Your task to perform on an android device: check android version Image 0: 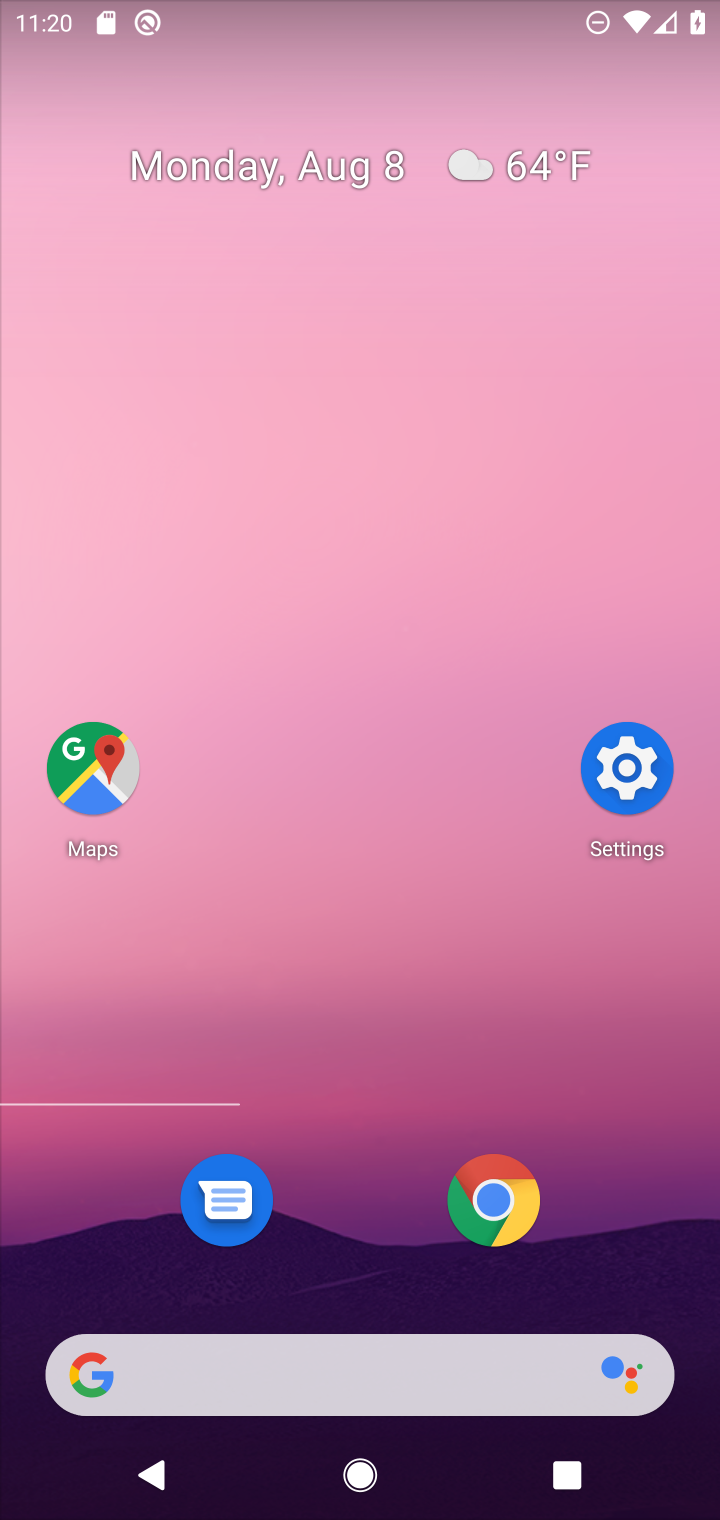
Step 0: press home button
Your task to perform on an android device: check android version Image 1: 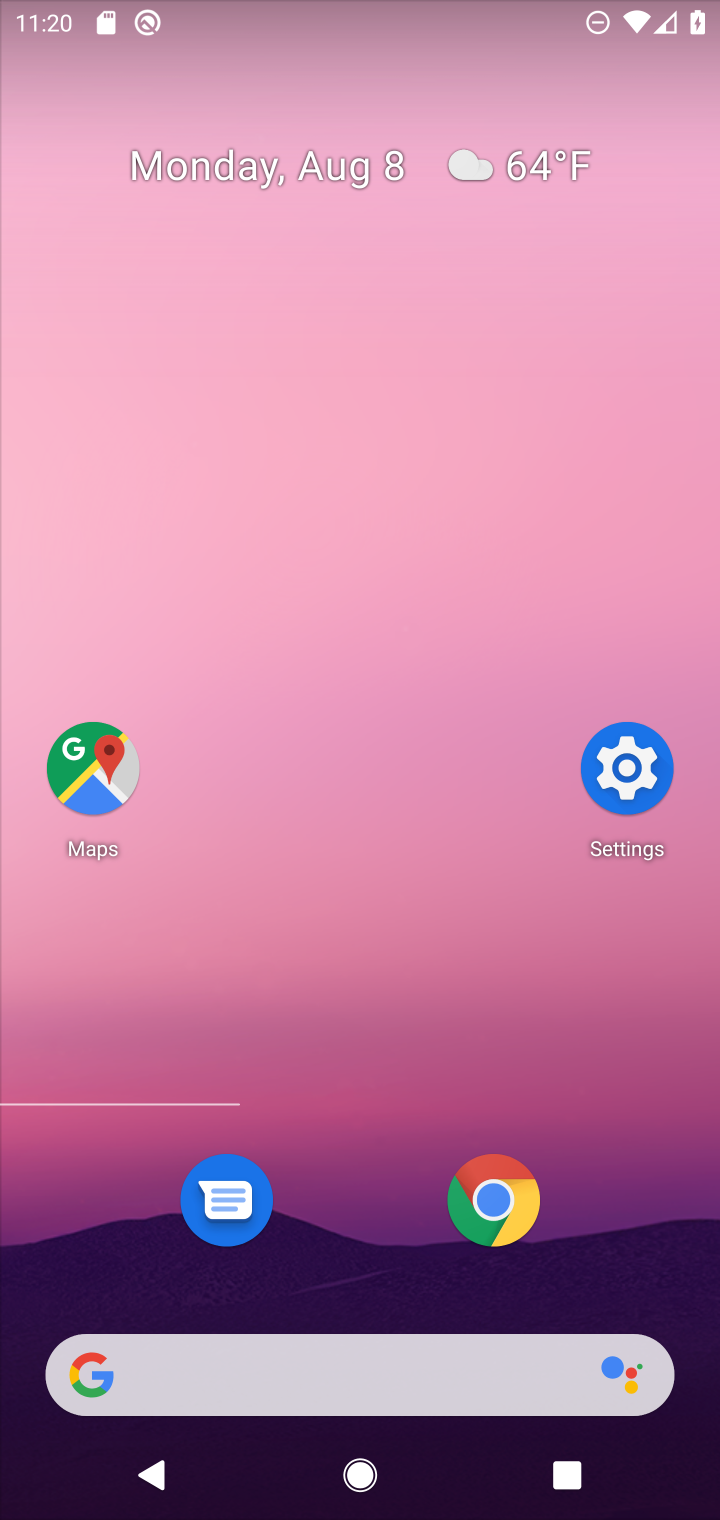
Step 1: click (629, 762)
Your task to perform on an android device: check android version Image 2: 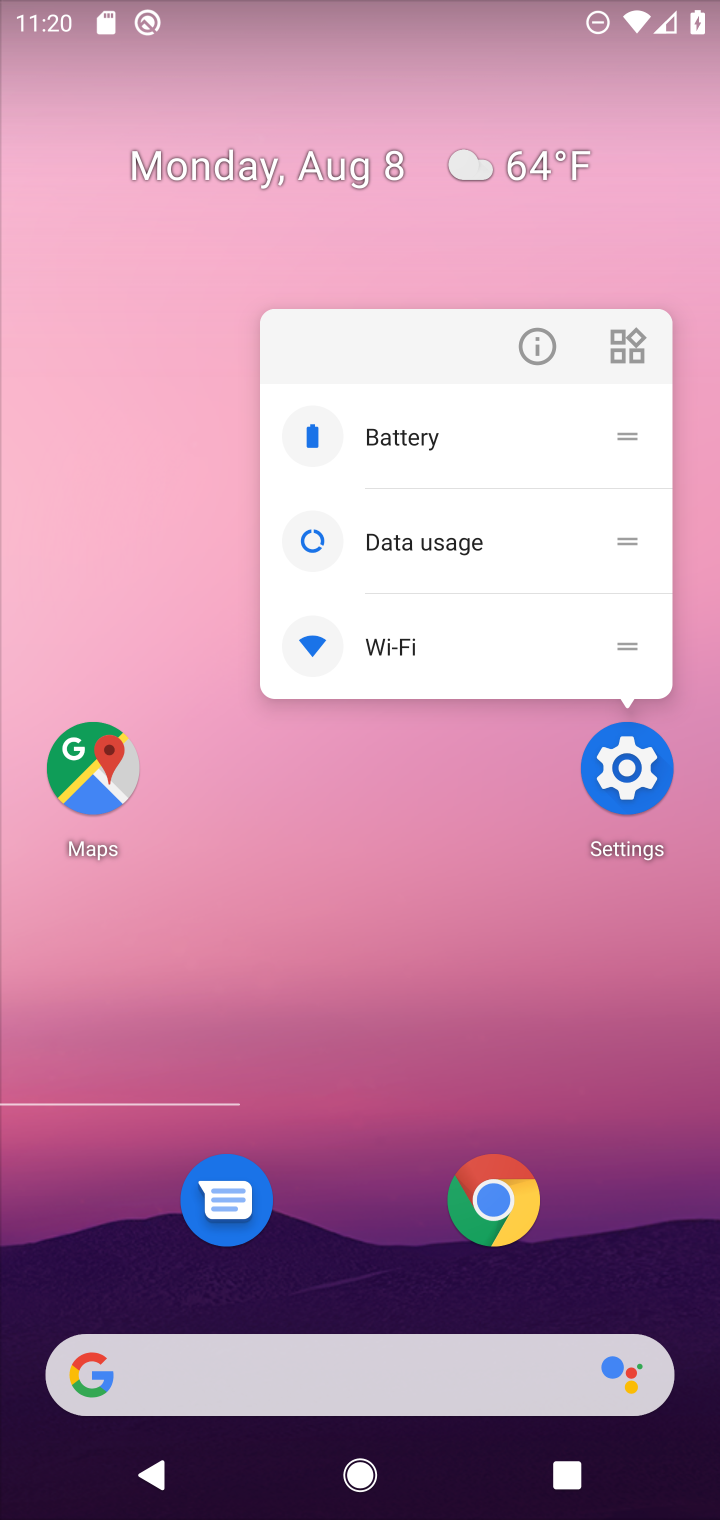
Step 2: click (629, 765)
Your task to perform on an android device: check android version Image 3: 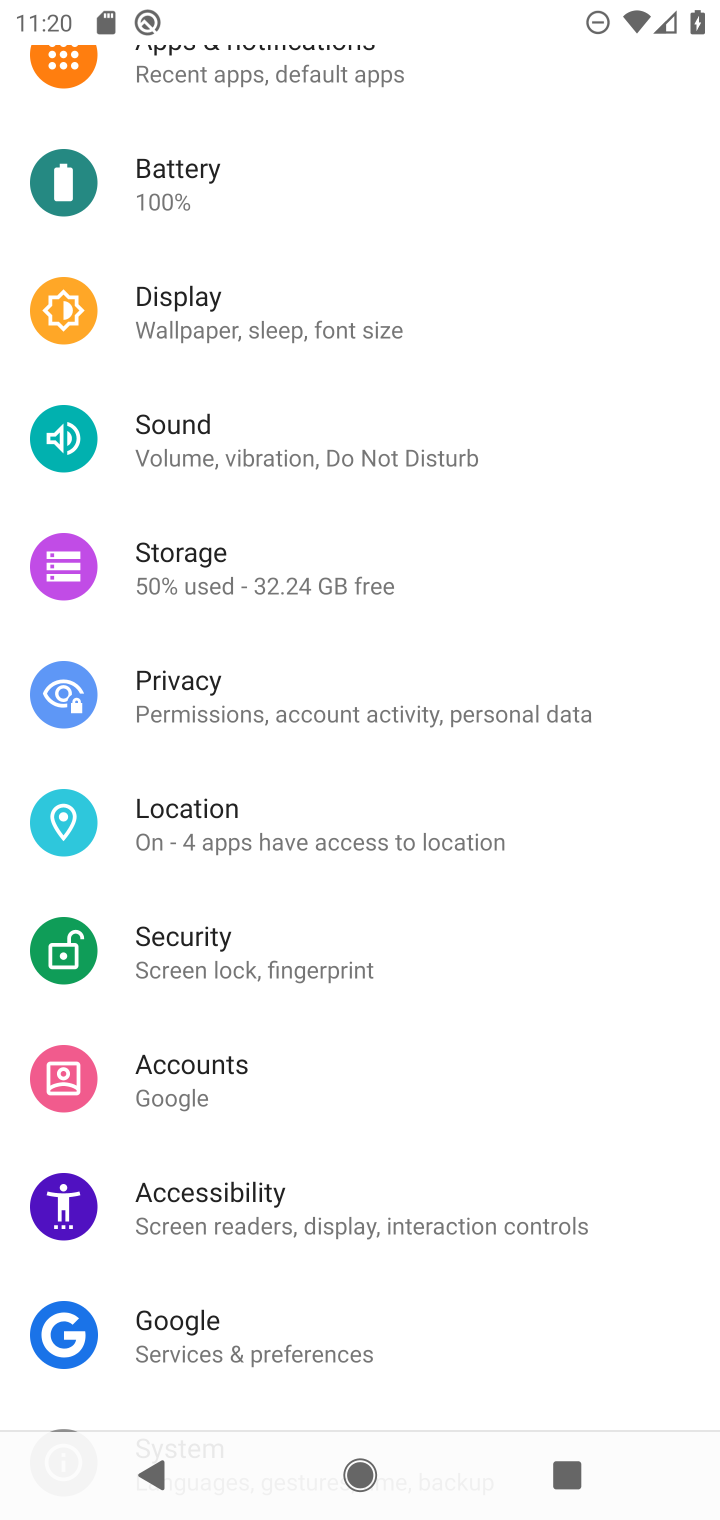
Step 3: drag from (394, 1346) to (591, 194)
Your task to perform on an android device: check android version Image 4: 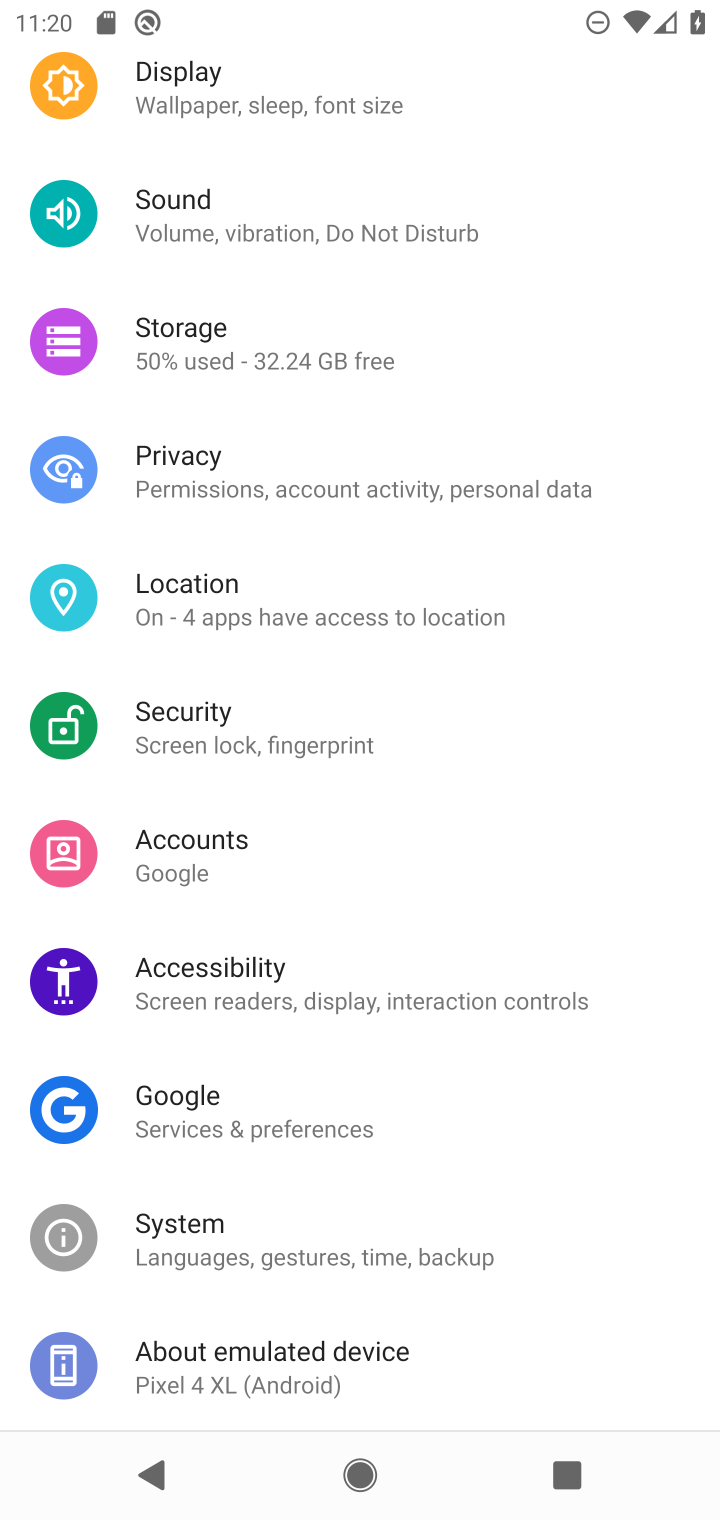
Step 4: click (256, 1354)
Your task to perform on an android device: check android version Image 5: 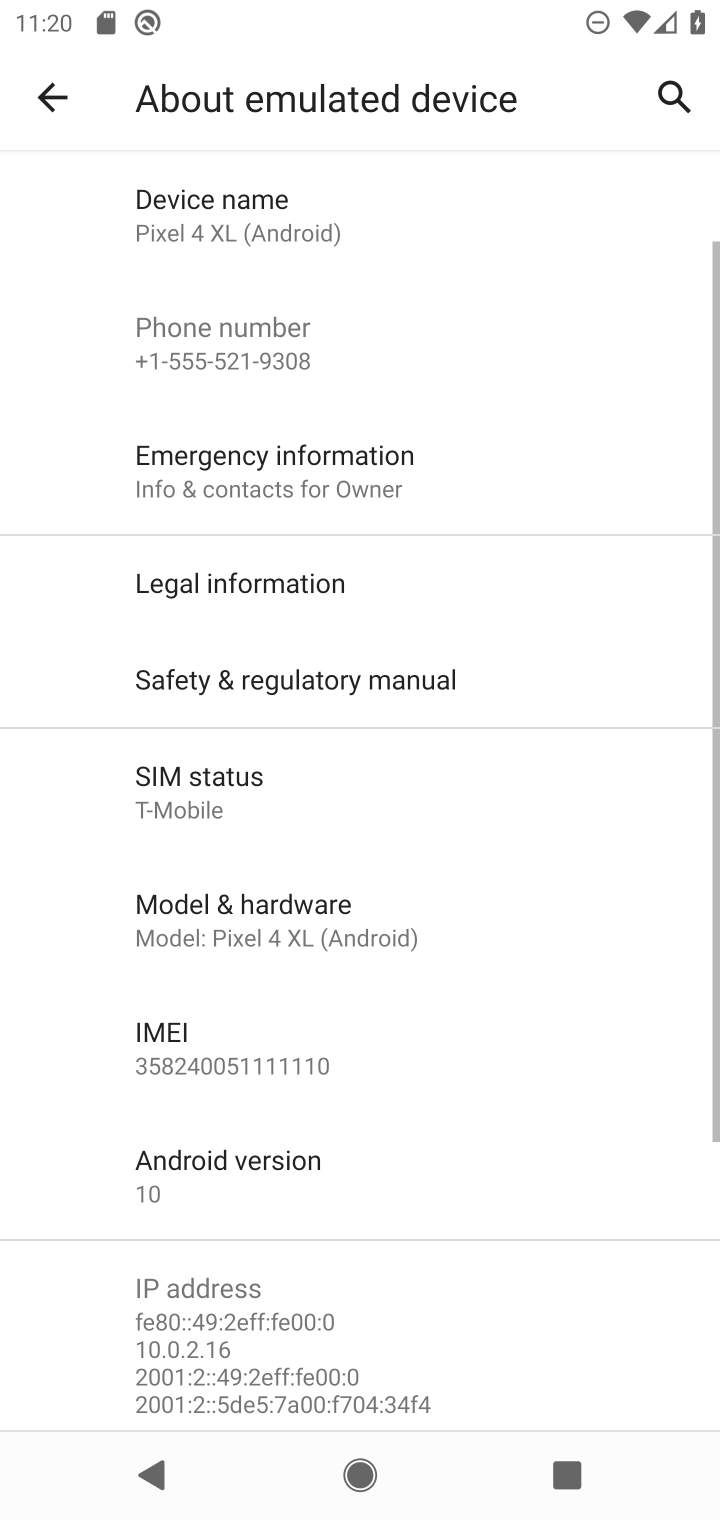
Step 5: click (256, 1155)
Your task to perform on an android device: check android version Image 6: 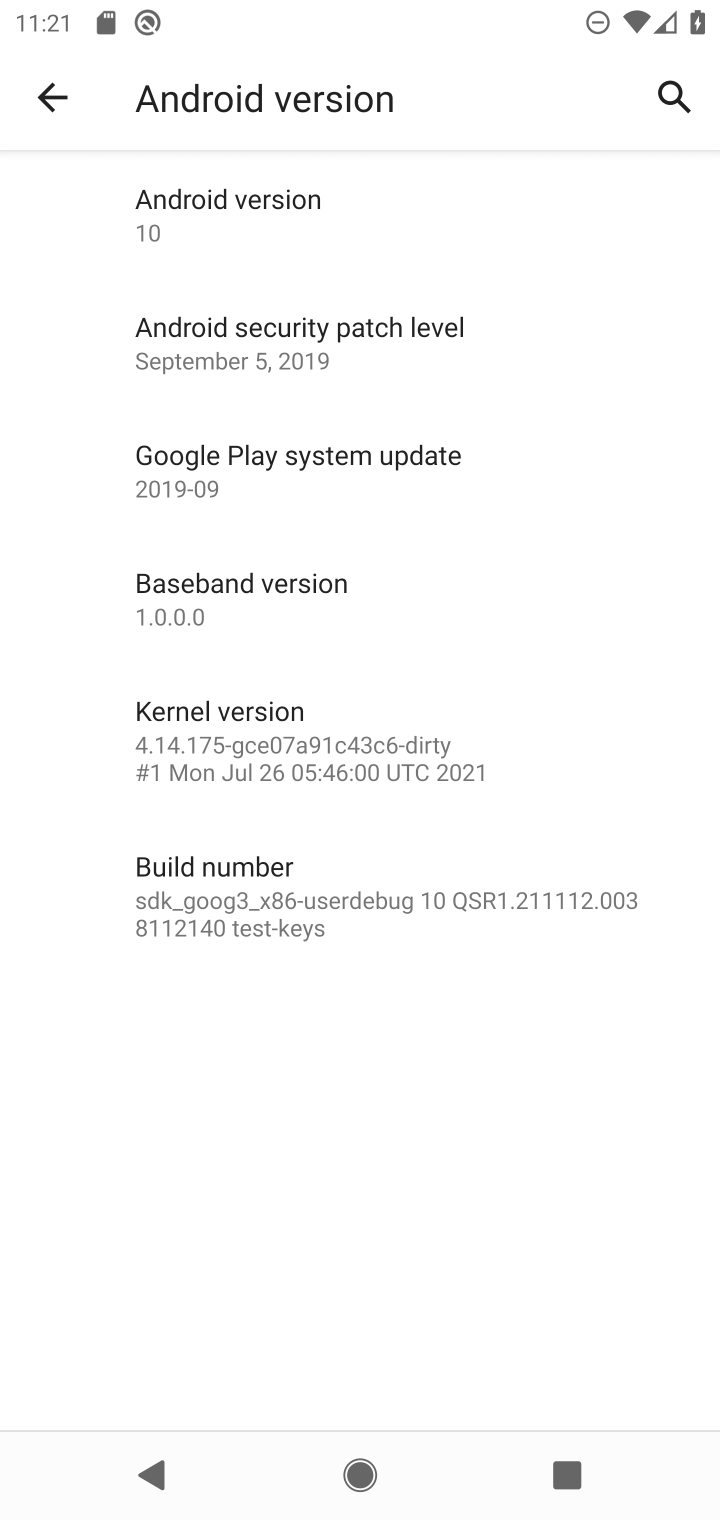
Step 6: task complete